Your task to perform on an android device: choose inbox layout in the gmail app Image 0: 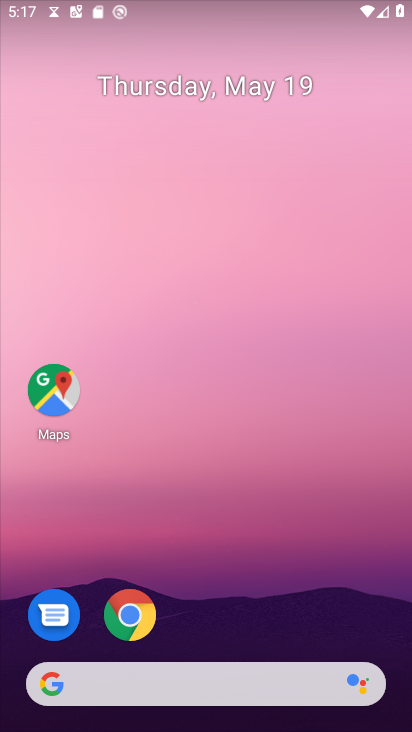
Step 0: drag from (194, 693) to (176, 65)
Your task to perform on an android device: choose inbox layout in the gmail app Image 1: 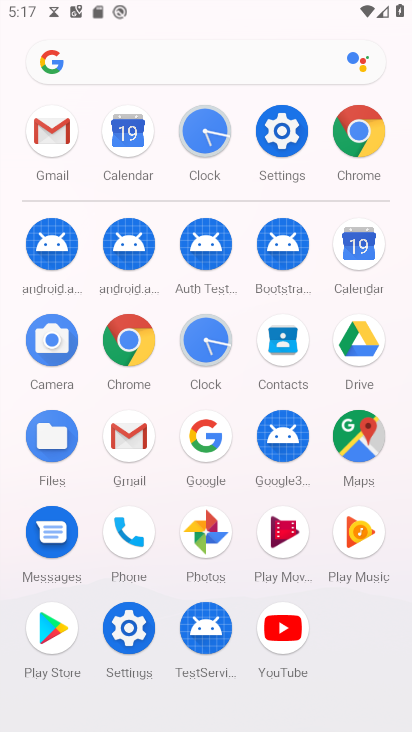
Step 1: click (135, 454)
Your task to perform on an android device: choose inbox layout in the gmail app Image 2: 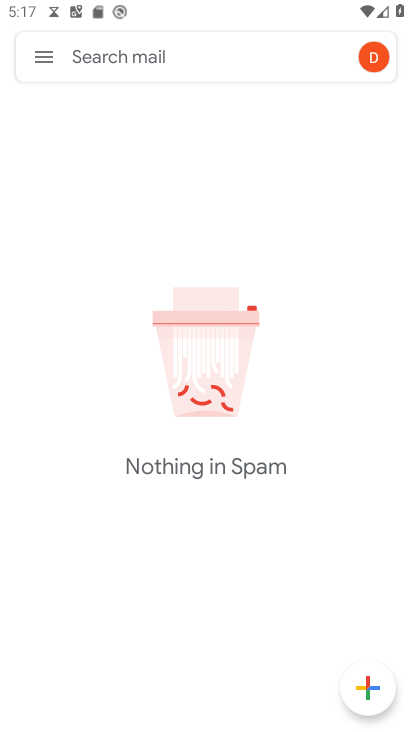
Step 2: click (33, 59)
Your task to perform on an android device: choose inbox layout in the gmail app Image 3: 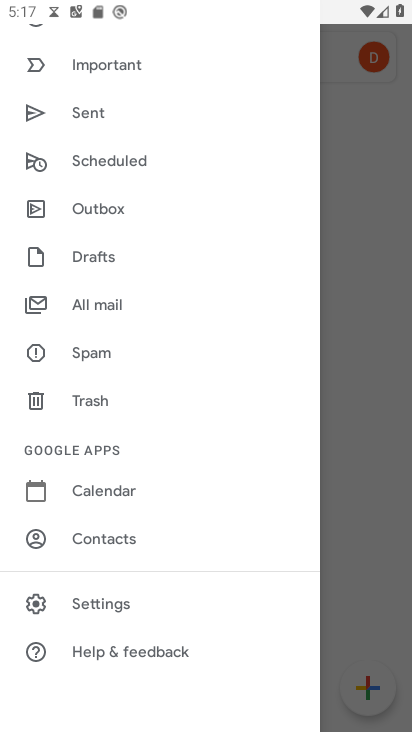
Step 3: click (88, 602)
Your task to perform on an android device: choose inbox layout in the gmail app Image 4: 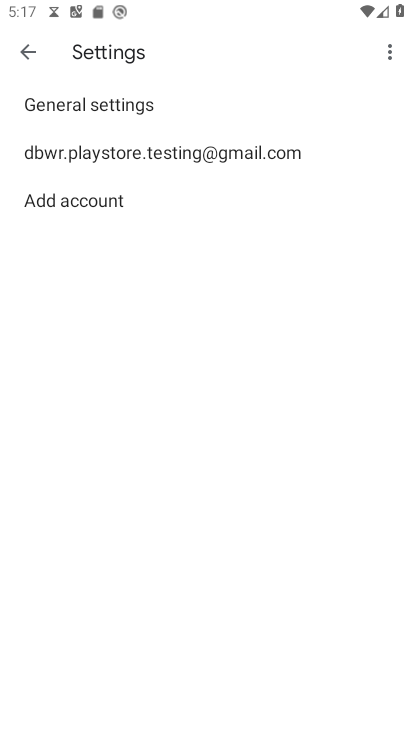
Step 4: click (150, 154)
Your task to perform on an android device: choose inbox layout in the gmail app Image 5: 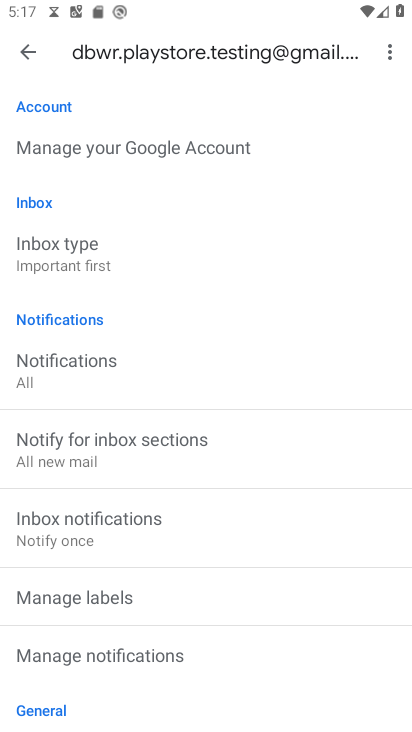
Step 5: click (82, 269)
Your task to perform on an android device: choose inbox layout in the gmail app Image 6: 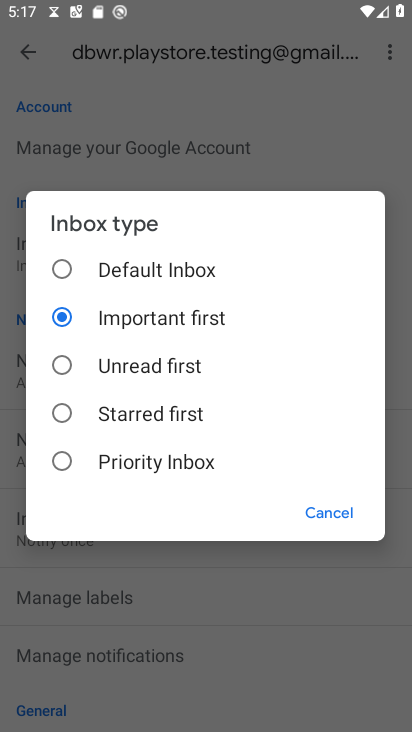
Step 6: click (351, 511)
Your task to perform on an android device: choose inbox layout in the gmail app Image 7: 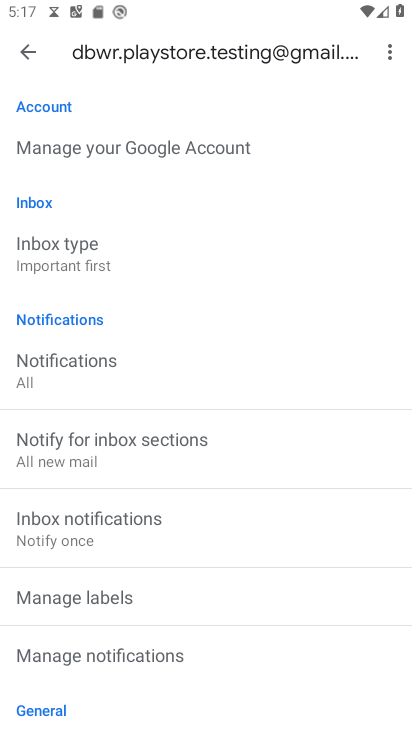
Step 7: task complete